Your task to perform on an android device: remove spam from my inbox in the gmail app Image 0: 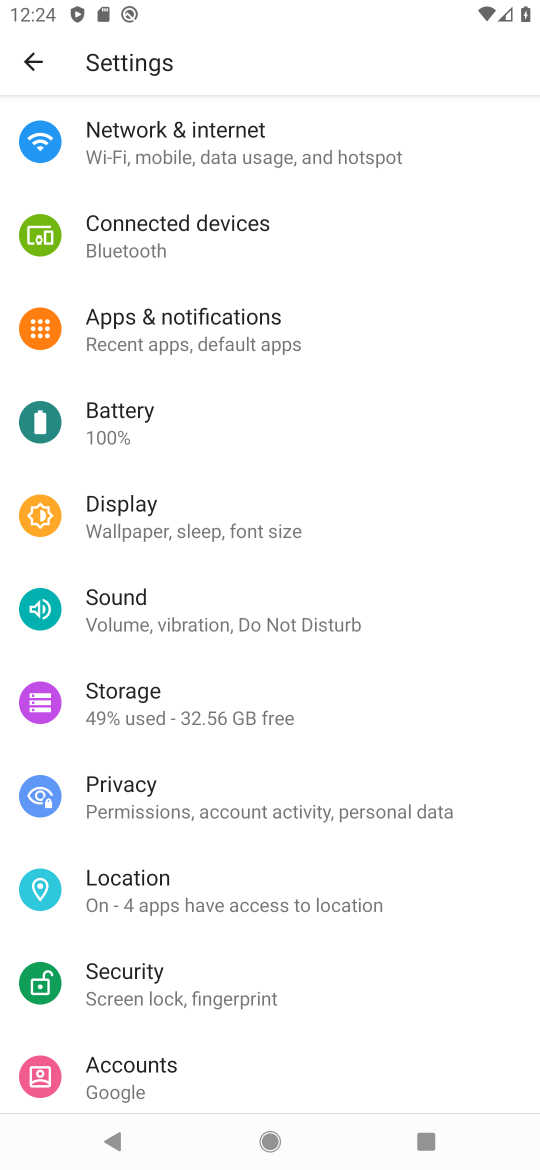
Step 0: press home button
Your task to perform on an android device: remove spam from my inbox in the gmail app Image 1: 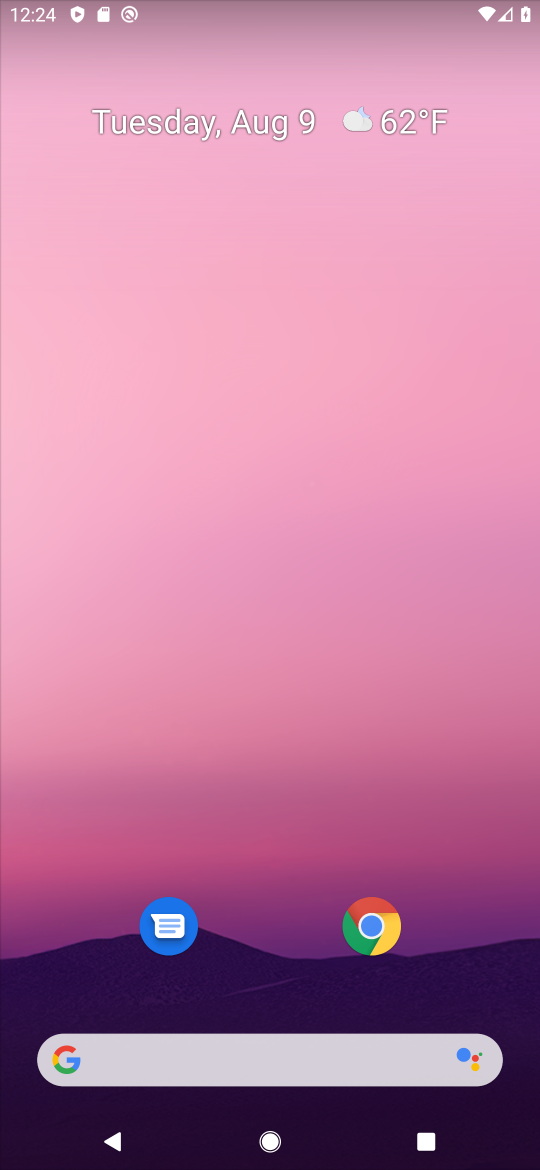
Step 1: drag from (55, 895) to (373, 217)
Your task to perform on an android device: remove spam from my inbox in the gmail app Image 2: 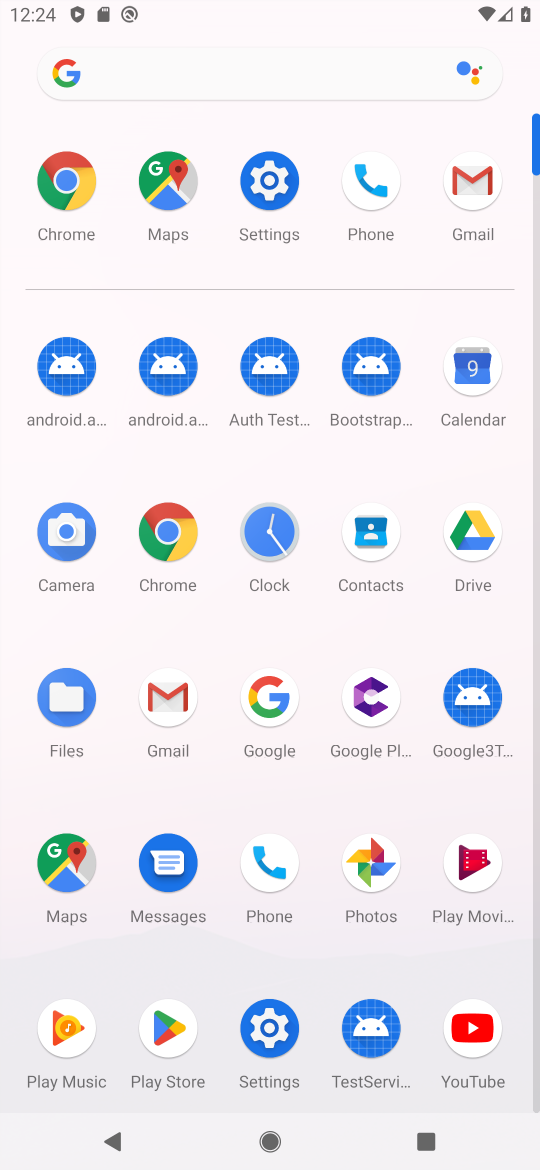
Step 2: click (474, 189)
Your task to perform on an android device: remove spam from my inbox in the gmail app Image 3: 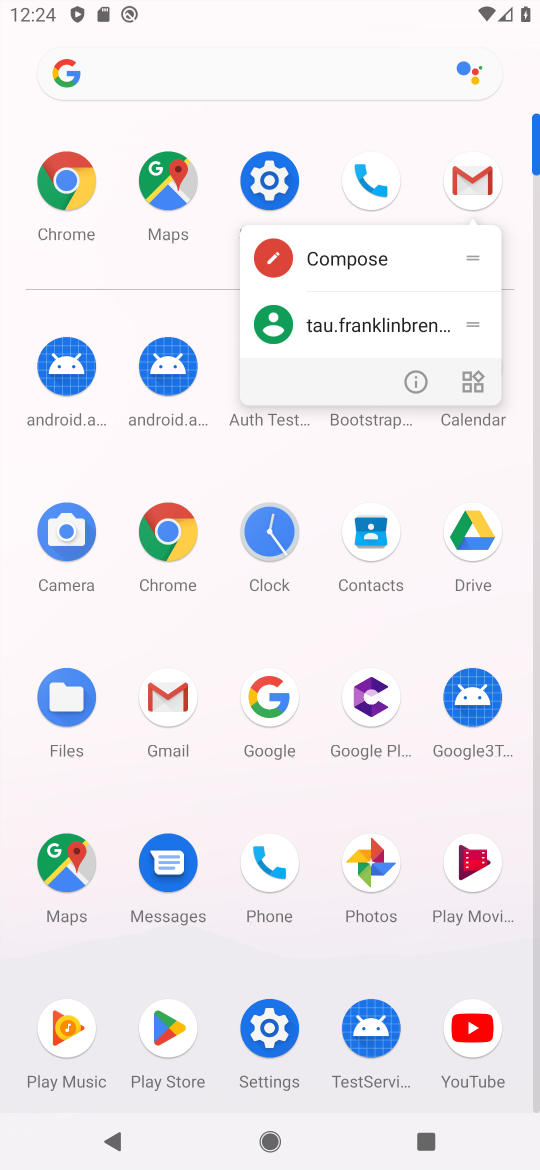
Step 3: click (474, 189)
Your task to perform on an android device: remove spam from my inbox in the gmail app Image 4: 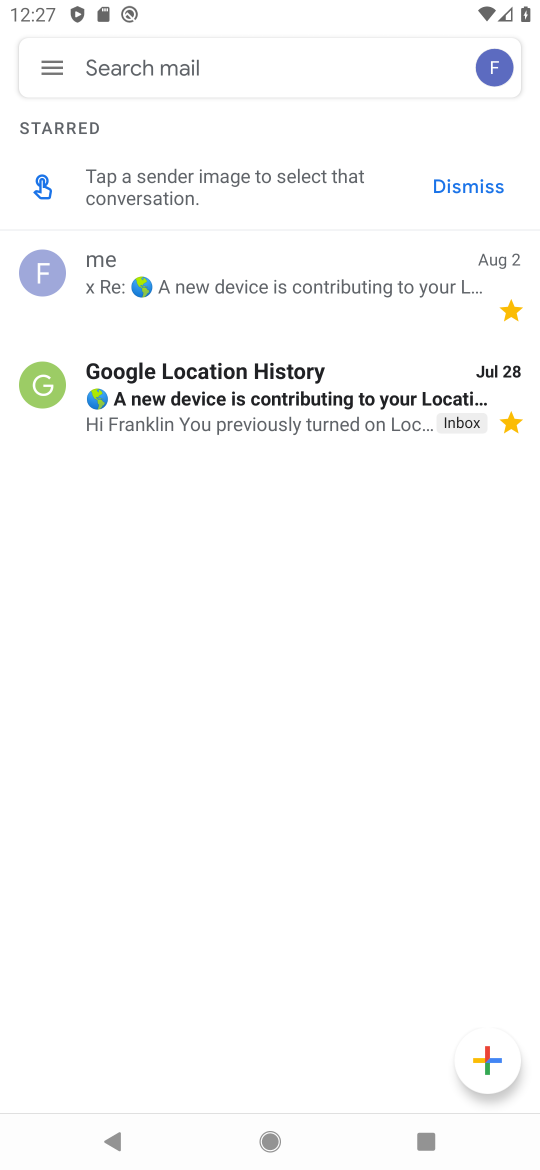
Step 4: task complete